Your task to perform on an android device: install app "Yahoo Mail" Image 0: 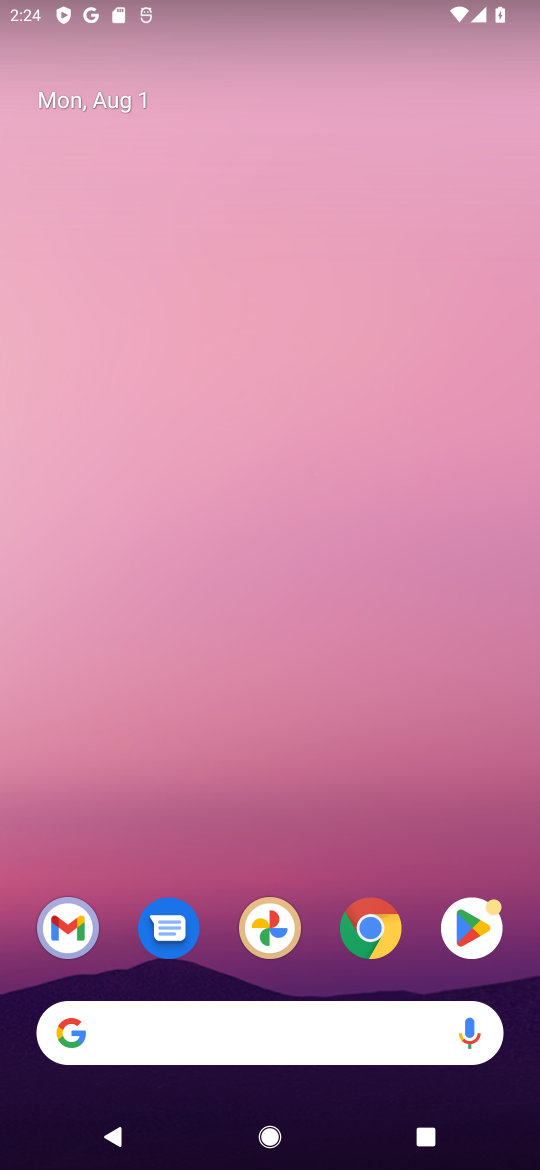
Step 0: click (446, 929)
Your task to perform on an android device: install app "Yahoo Mail" Image 1: 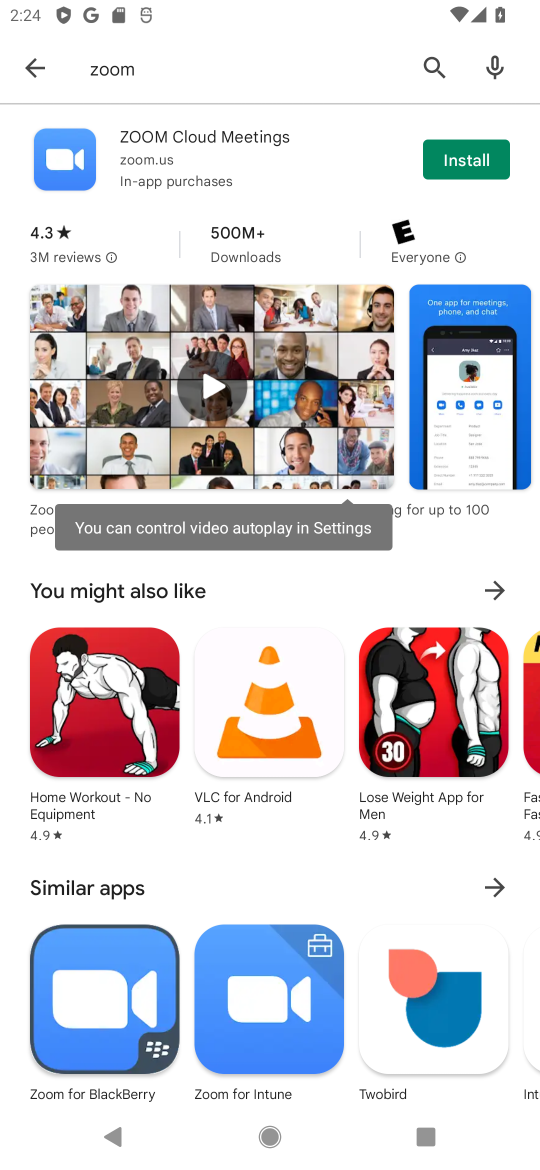
Step 1: click (432, 64)
Your task to perform on an android device: install app "Yahoo Mail" Image 2: 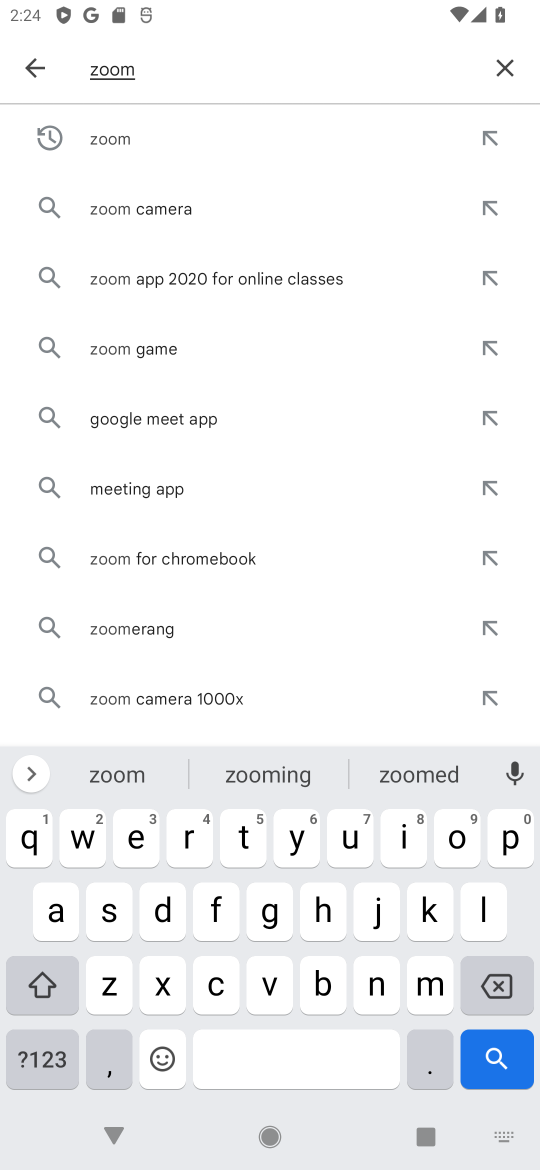
Step 2: click (516, 58)
Your task to perform on an android device: install app "Yahoo Mail" Image 3: 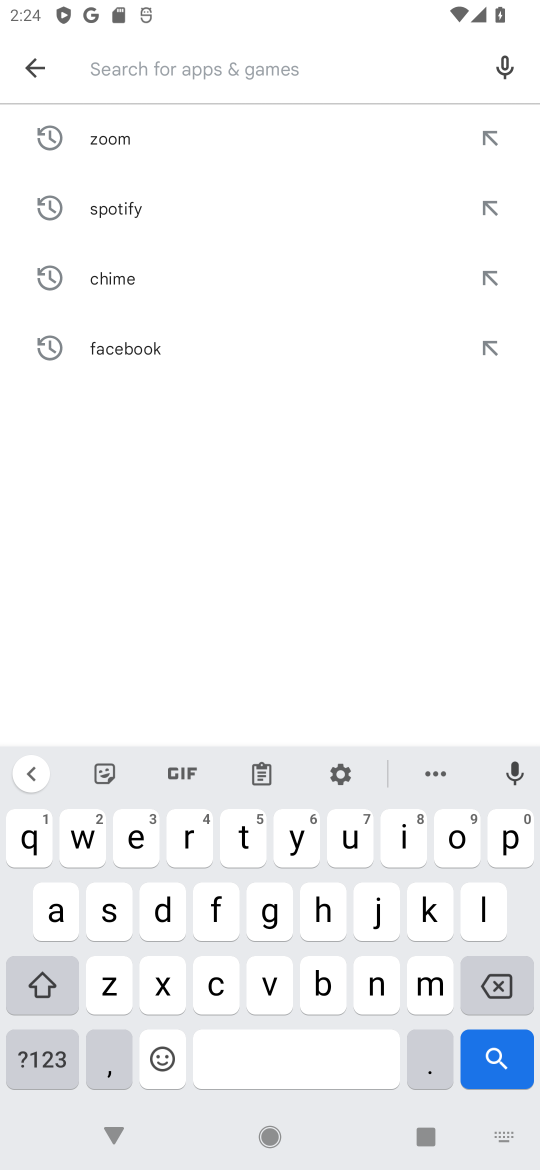
Step 3: click (290, 844)
Your task to perform on an android device: install app "Yahoo Mail" Image 4: 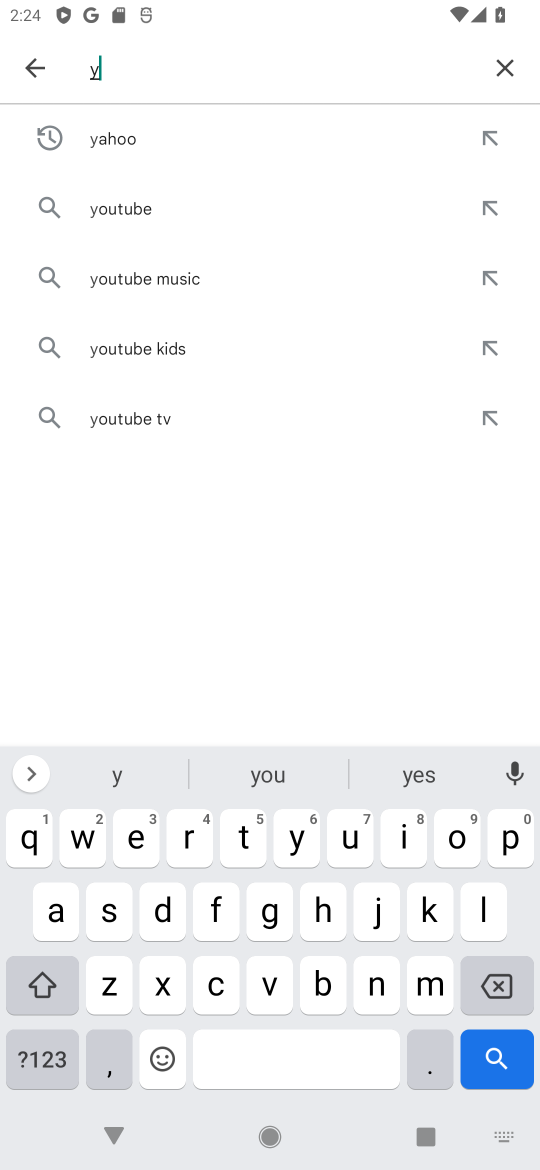
Step 4: click (125, 137)
Your task to perform on an android device: install app "Yahoo Mail" Image 5: 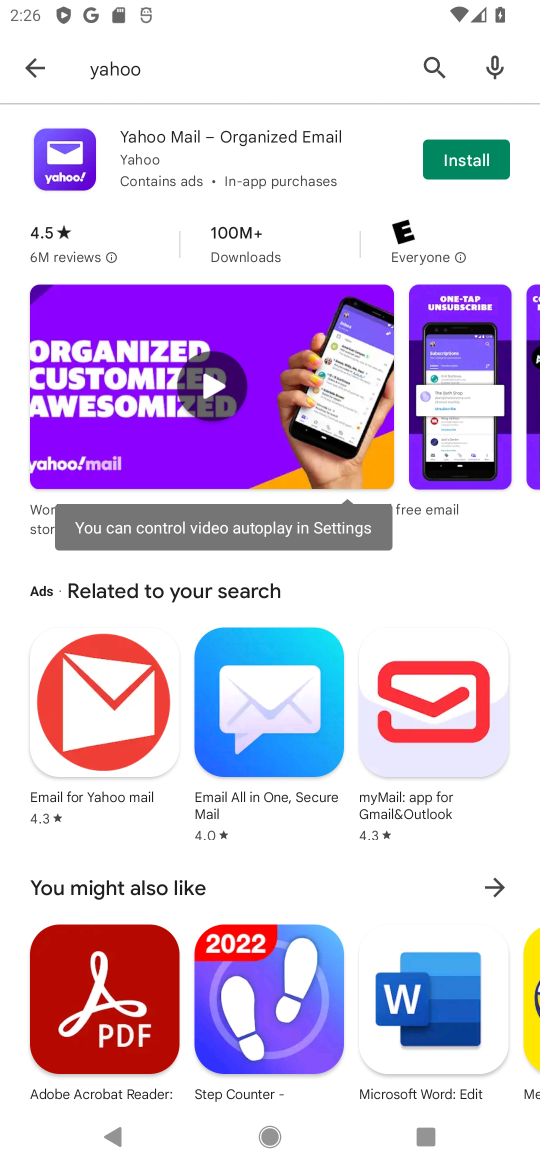
Step 5: click (471, 156)
Your task to perform on an android device: install app "Yahoo Mail" Image 6: 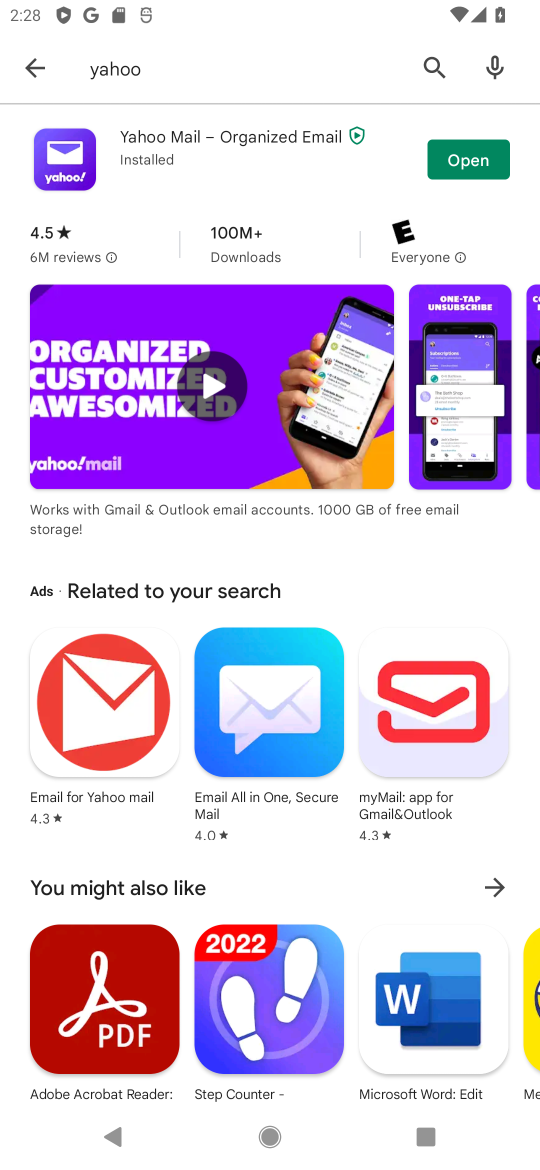
Step 6: task complete